Your task to perform on an android device: Search for sushi restaurants on Maps Image 0: 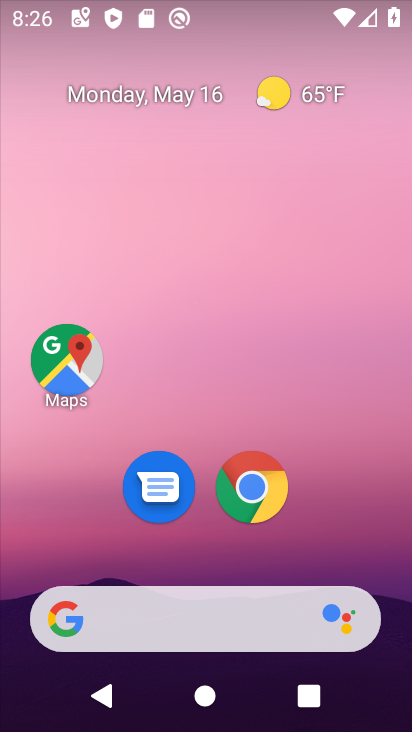
Step 0: drag from (375, 550) to (364, 160)
Your task to perform on an android device: Search for sushi restaurants on Maps Image 1: 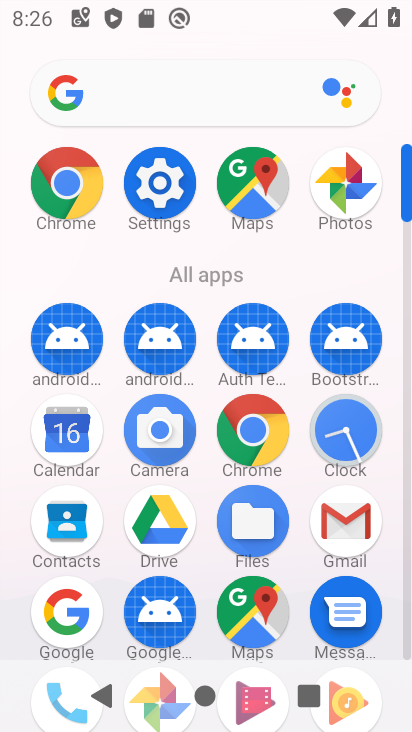
Step 1: click (249, 208)
Your task to perform on an android device: Search for sushi restaurants on Maps Image 2: 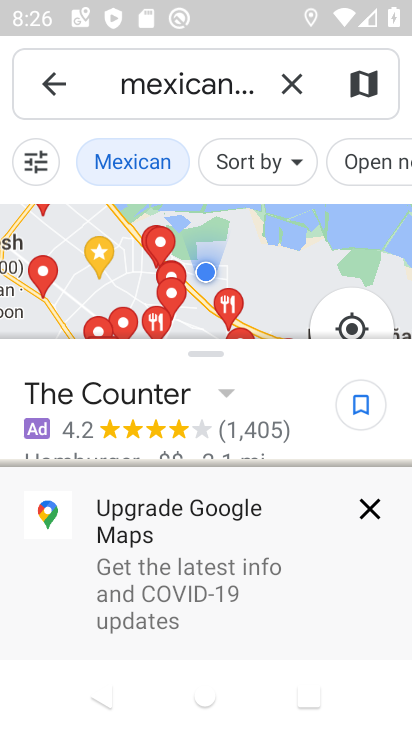
Step 2: click (287, 73)
Your task to perform on an android device: Search for sushi restaurants on Maps Image 3: 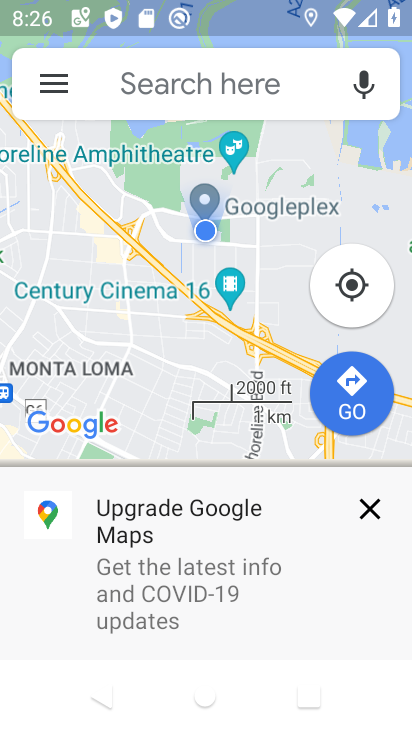
Step 3: click (250, 89)
Your task to perform on an android device: Search for sushi restaurants on Maps Image 4: 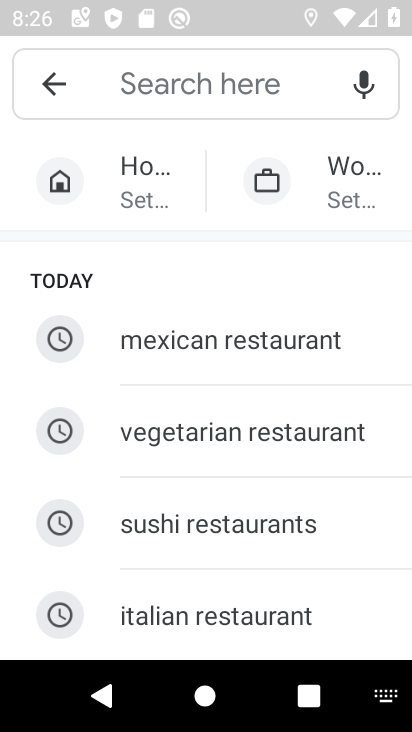
Step 4: type "sushi restaurants"
Your task to perform on an android device: Search for sushi restaurants on Maps Image 5: 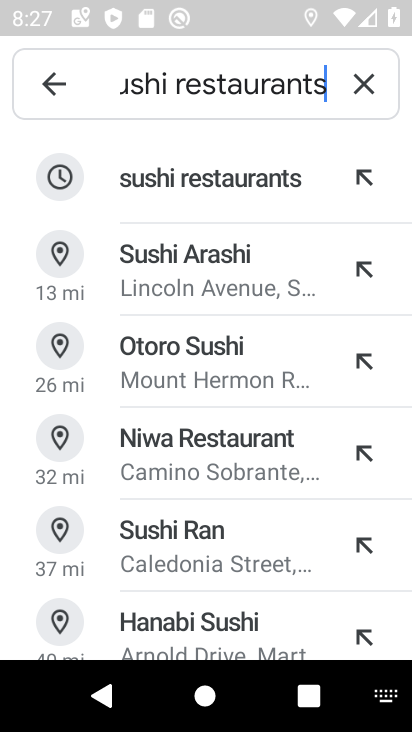
Step 5: click (225, 187)
Your task to perform on an android device: Search for sushi restaurants on Maps Image 6: 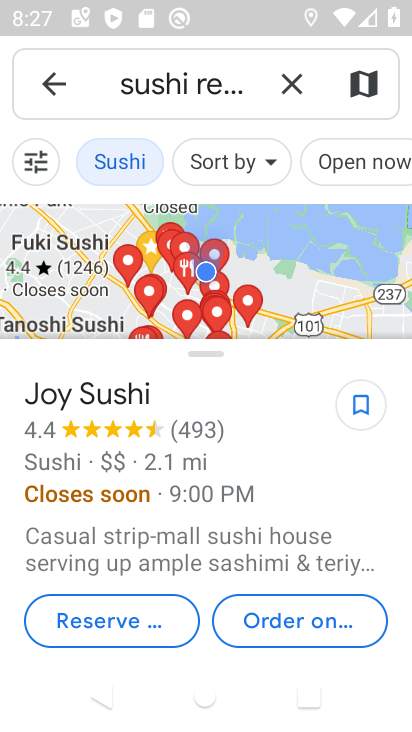
Step 6: task complete